Your task to perform on an android device: install app "Adobe Acrobat Reader" Image 0: 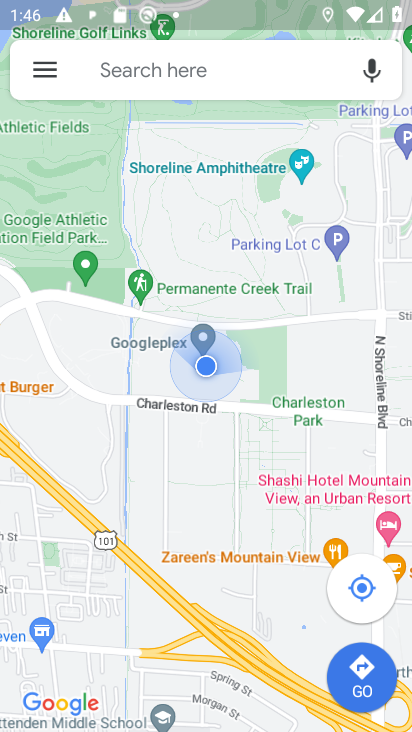
Step 0: press home button
Your task to perform on an android device: install app "Adobe Acrobat Reader" Image 1: 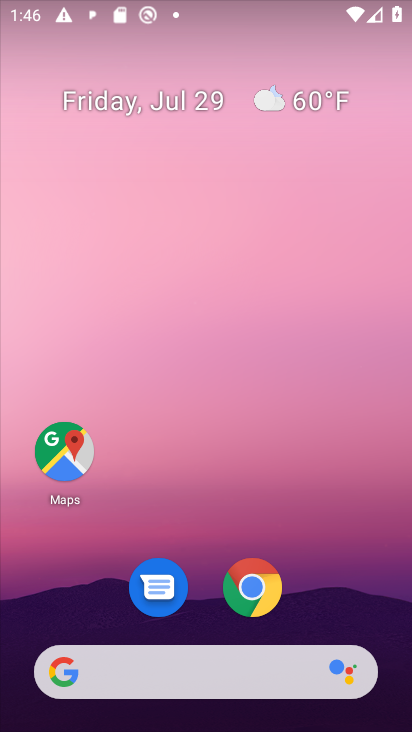
Step 1: drag from (232, 702) to (239, 72)
Your task to perform on an android device: install app "Adobe Acrobat Reader" Image 2: 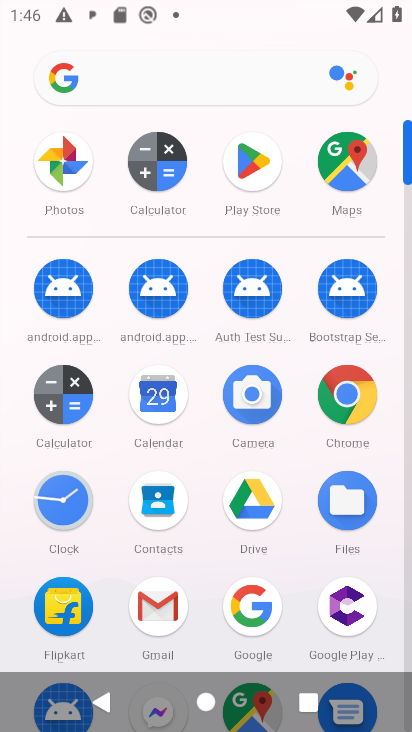
Step 2: click (237, 161)
Your task to perform on an android device: install app "Adobe Acrobat Reader" Image 3: 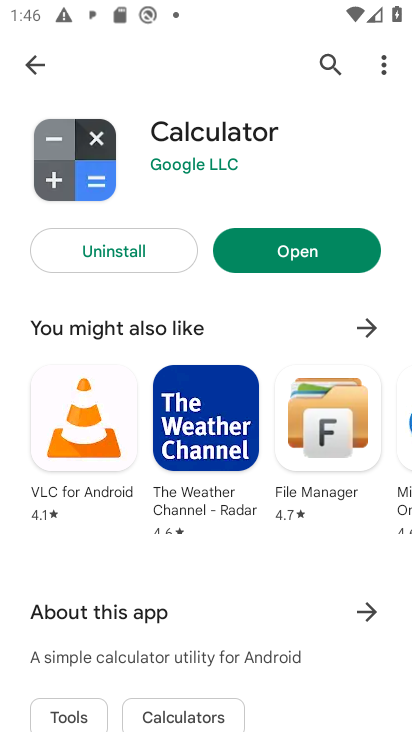
Step 3: click (327, 62)
Your task to perform on an android device: install app "Adobe Acrobat Reader" Image 4: 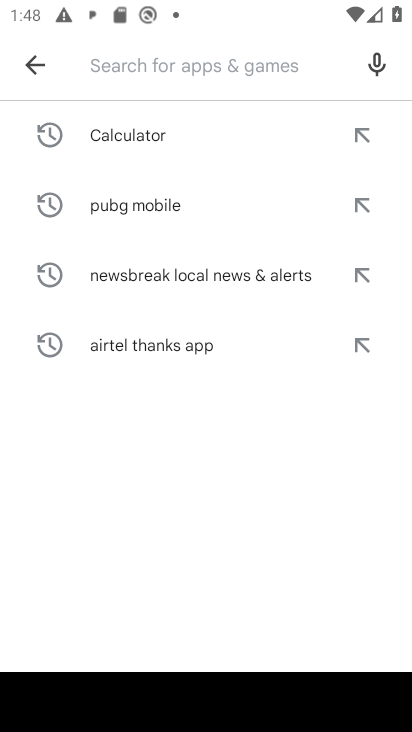
Step 4: type "adobe Acrobat Reader"
Your task to perform on an android device: install app "Adobe Acrobat Reader" Image 5: 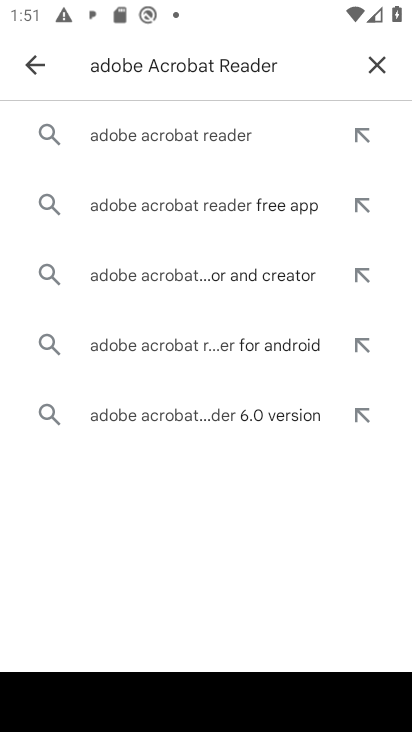
Step 5: click (270, 134)
Your task to perform on an android device: install app "Adobe Acrobat Reader" Image 6: 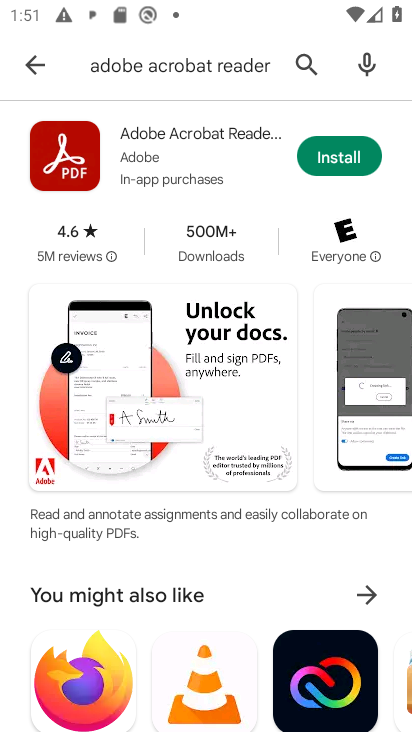
Step 6: click (350, 153)
Your task to perform on an android device: install app "Adobe Acrobat Reader" Image 7: 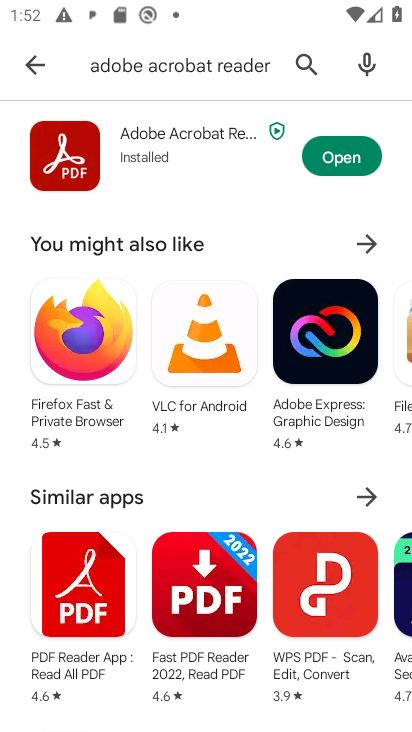
Step 7: task complete